Your task to perform on an android device: check storage Image 0: 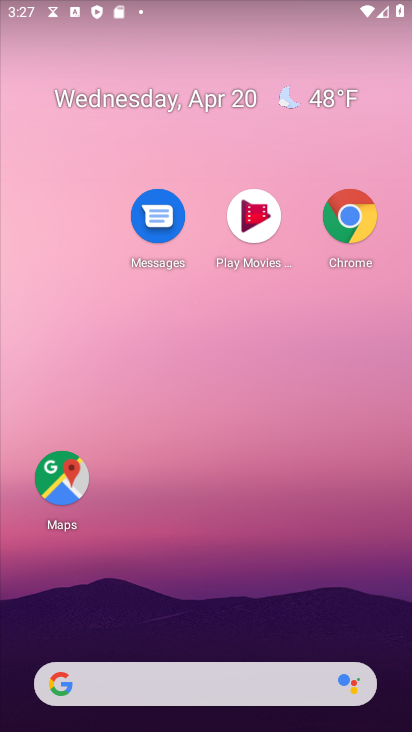
Step 0: drag from (304, 620) to (274, 81)
Your task to perform on an android device: check storage Image 1: 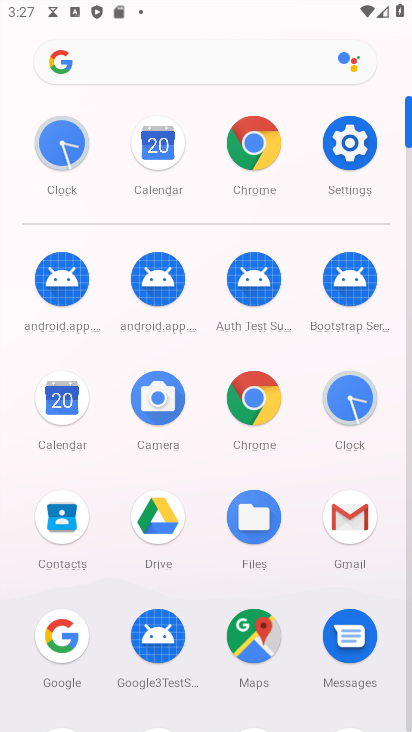
Step 1: click (345, 233)
Your task to perform on an android device: check storage Image 2: 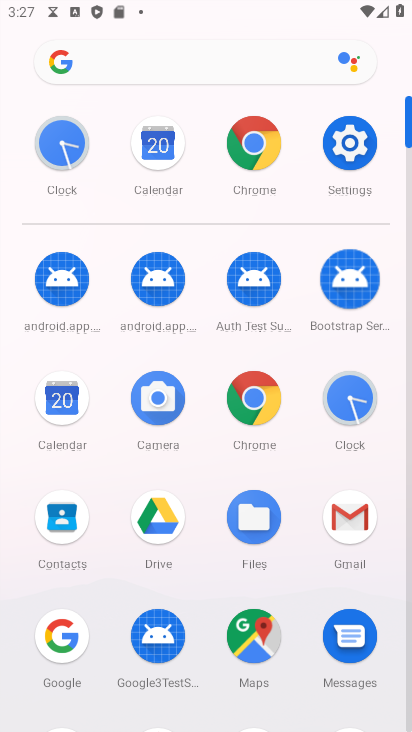
Step 2: click (355, 141)
Your task to perform on an android device: check storage Image 3: 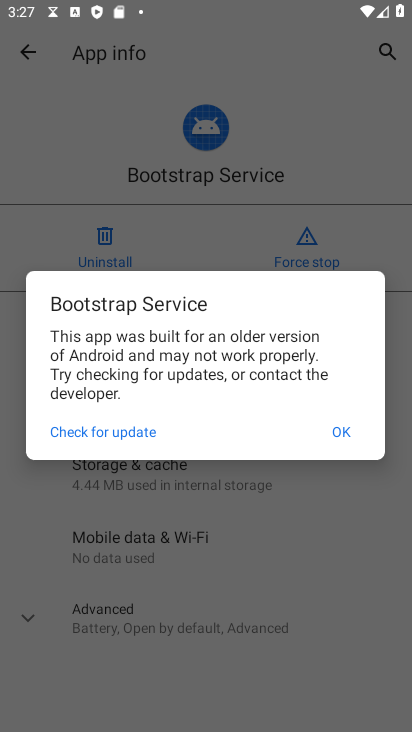
Step 3: click (345, 436)
Your task to perform on an android device: check storage Image 4: 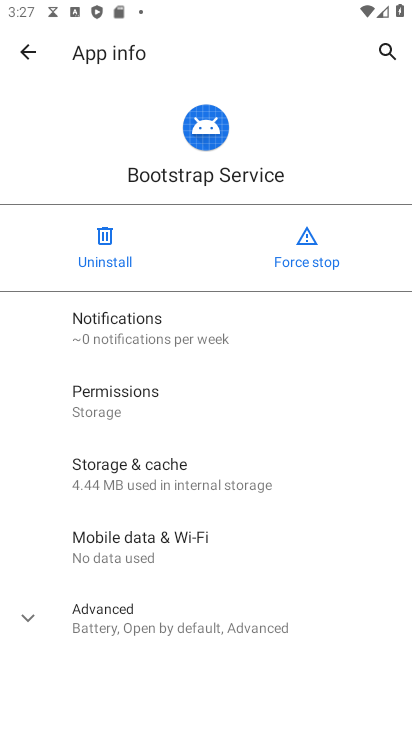
Step 4: press back button
Your task to perform on an android device: check storage Image 5: 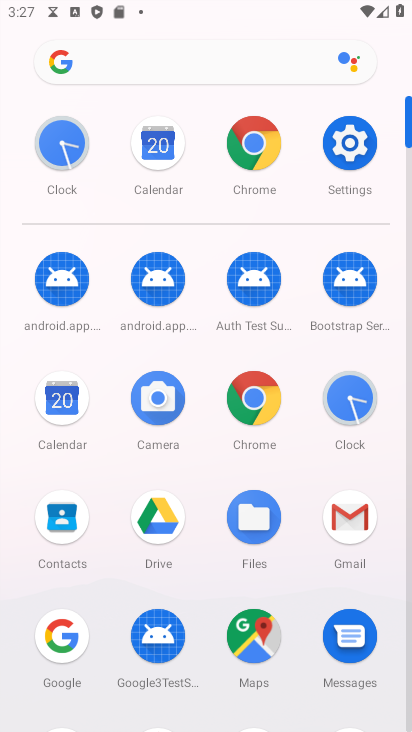
Step 5: click (337, 162)
Your task to perform on an android device: check storage Image 6: 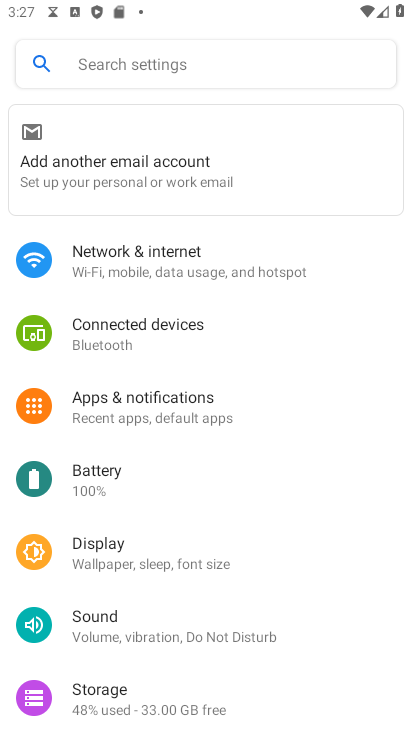
Step 6: click (154, 689)
Your task to perform on an android device: check storage Image 7: 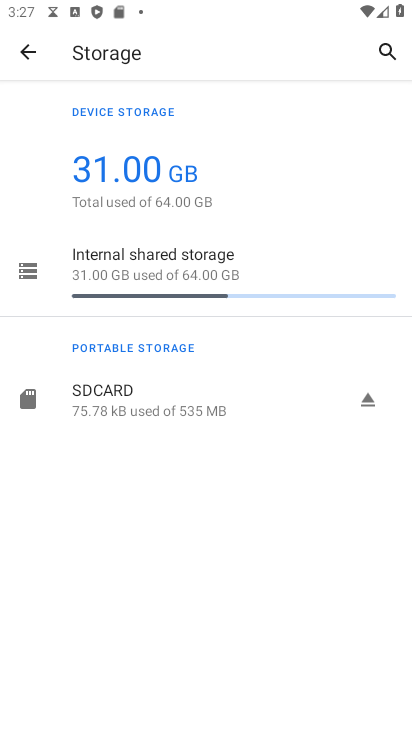
Step 7: click (243, 272)
Your task to perform on an android device: check storage Image 8: 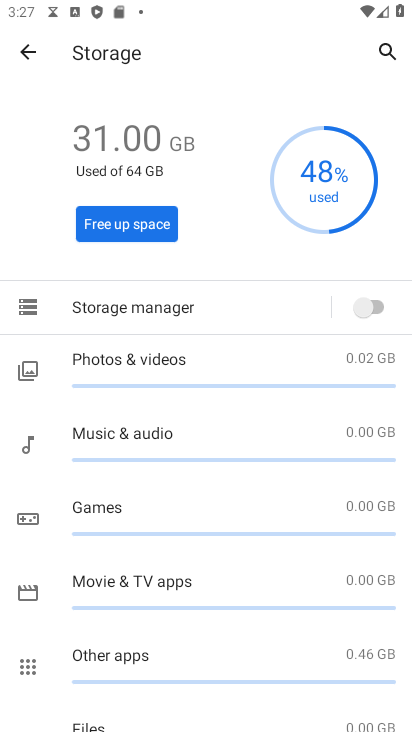
Step 8: task complete